Your task to perform on an android device: Do I have any events today? Image 0: 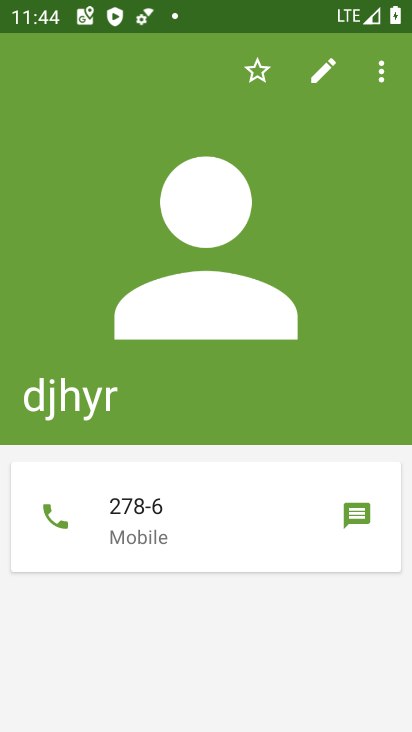
Step 0: press home button
Your task to perform on an android device: Do I have any events today? Image 1: 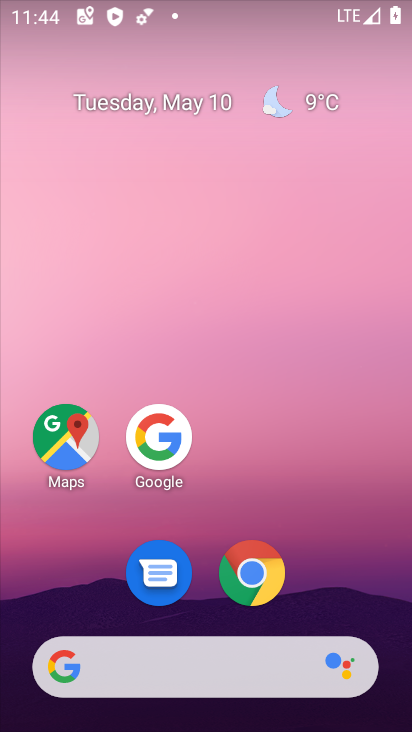
Step 1: drag from (163, 661) to (287, 115)
Your task to perform on an android device: Do I have any events today? Image 2: 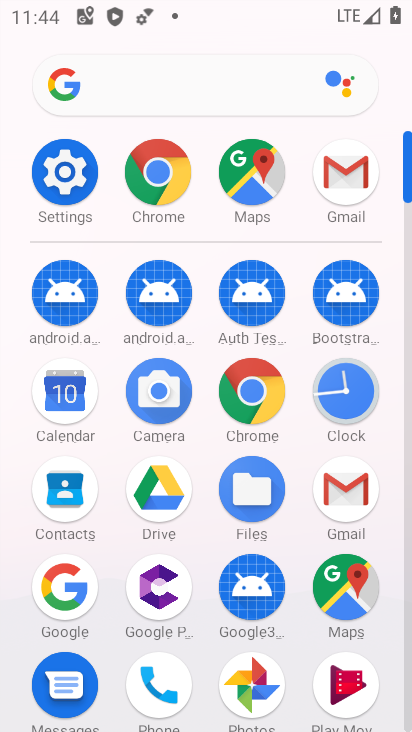
Step 2: click (63, 408)
Your task to perform on an android device: Do I have any events today? Image 3: 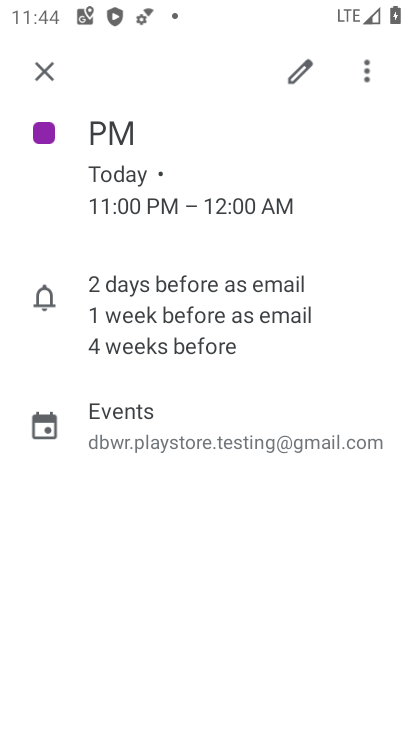
Step 3: task complete